Your task to perform on an android device: remove spam from my inbox in the gmail app Image 0: 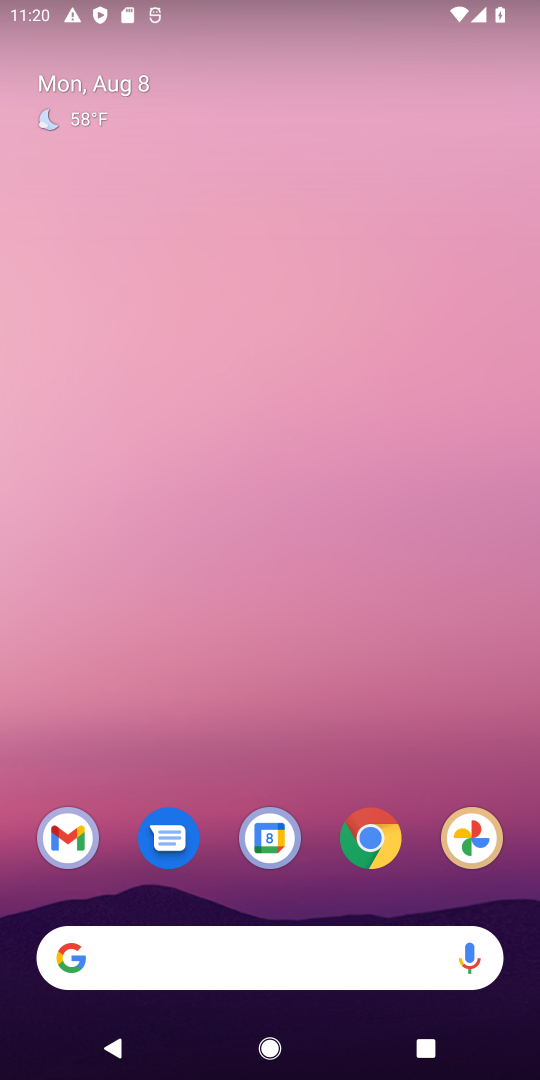
Step 0: press home button
Your task to perform on an android device: remove spam from my inbox in the gmail app Image 1: 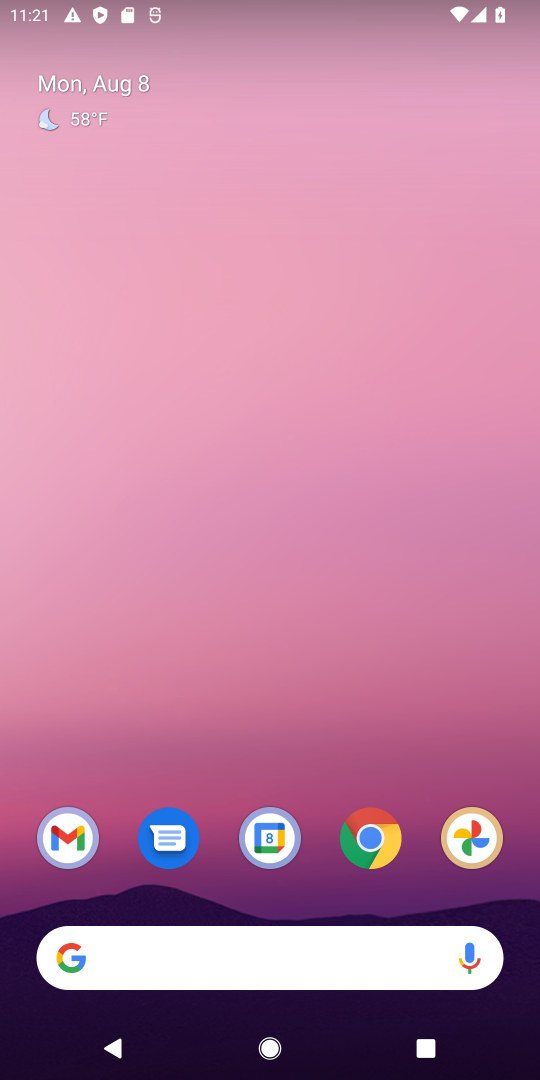
Step 1: drag from (323, 891) to (386, 228)
Your task to perform on an android device: remove spam from my inbox in the gmail app Image 2: 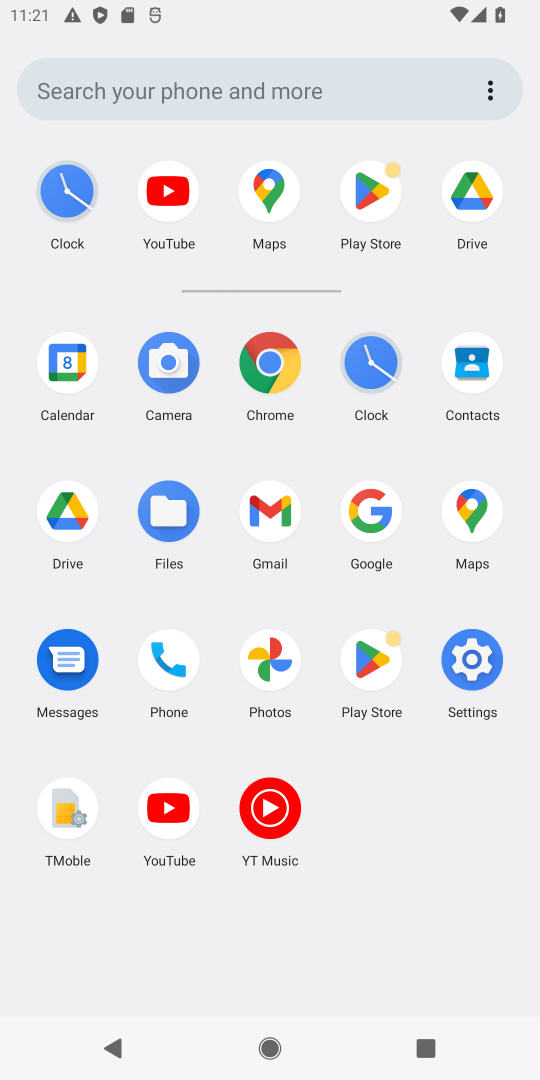
Step 2: click (269, 510)
Your task to perform on an android device: remove spam from my inbox in the gmail app Image 3: 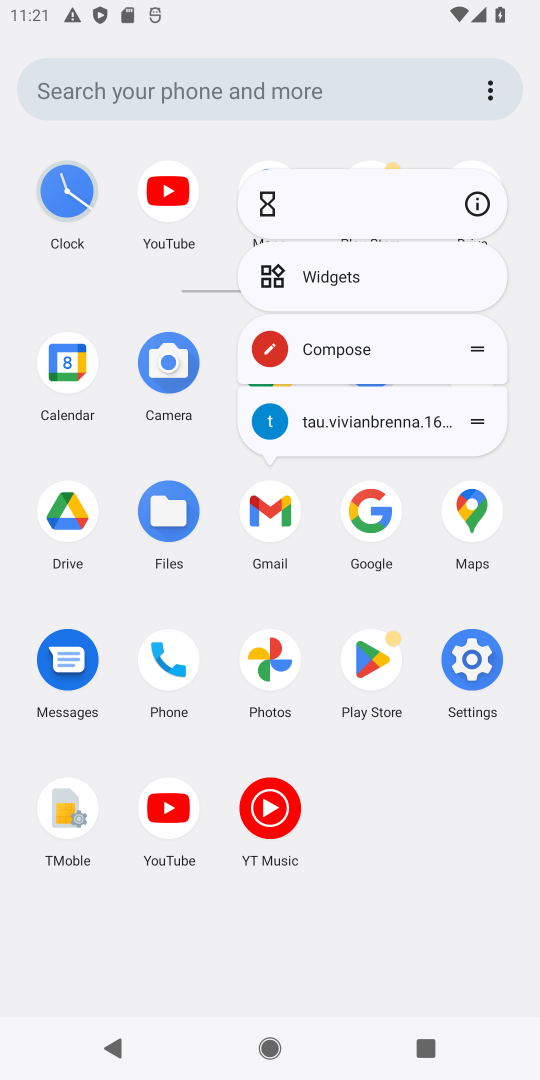
Step 3: click (250, 520)
Your task to perform on an android device: remove spam from my inbox in the gmail app Image 4: 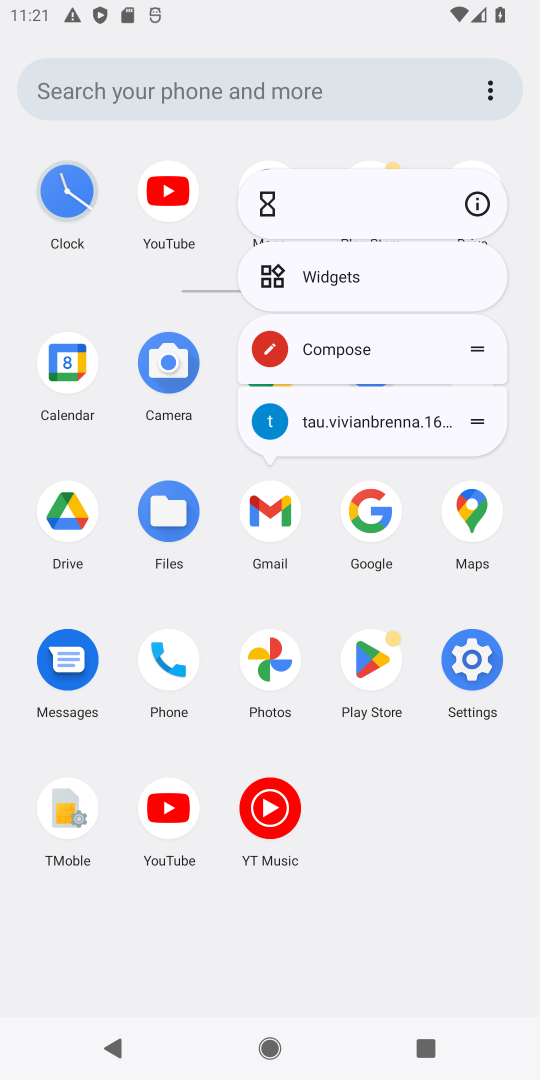
Step 4: click (280, 514)
Your task to perform on an android device: remove spam from my inbox in the gmail app Image 5: 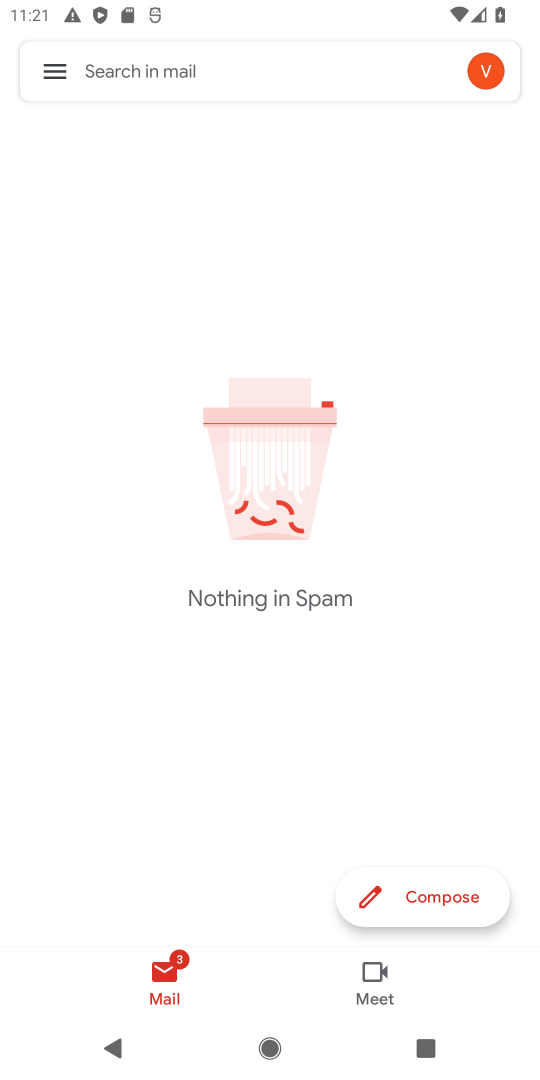
Step 5: click (51, 67)
Your task to perform on an android device: remove spam from my inbox in the gmail app Image 6: 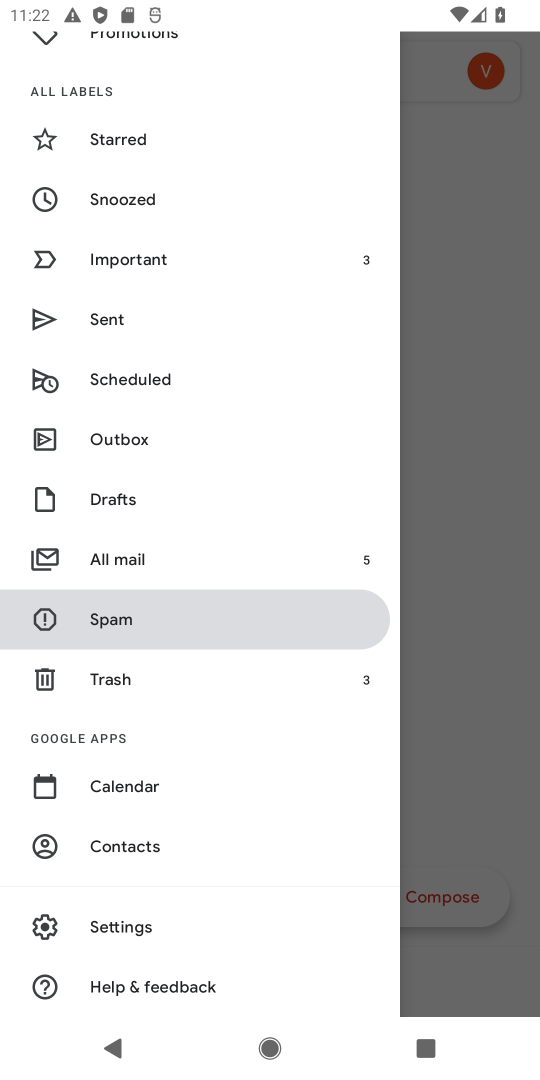
Step 6: click (85, 617)
Your task to perform on an android device: remove spam from my inbox in the gmail app Image 7: 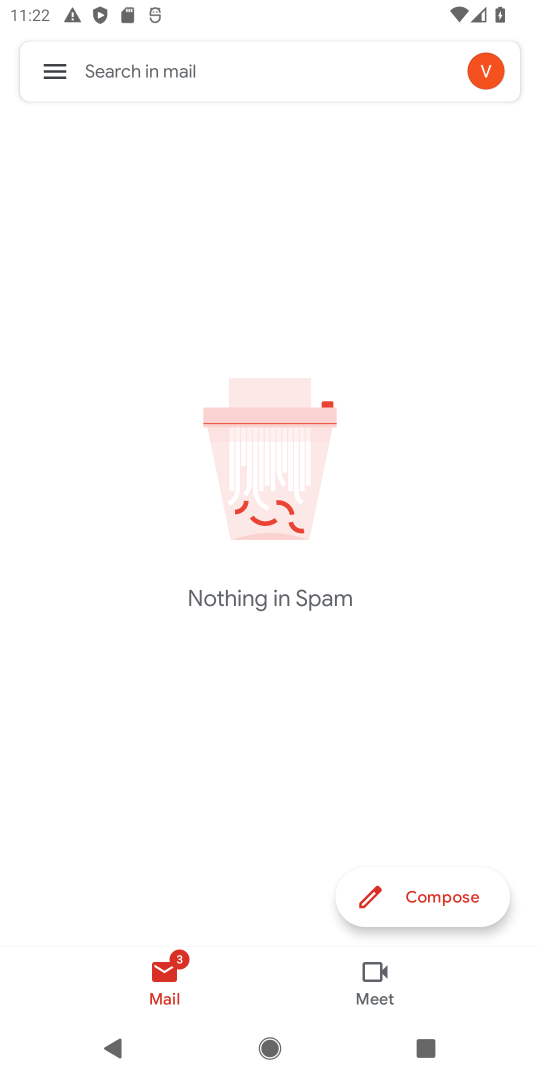
Step 7: task complete